Your task to perform on an android device: toggle priority inbox in the gmail app Image 0: 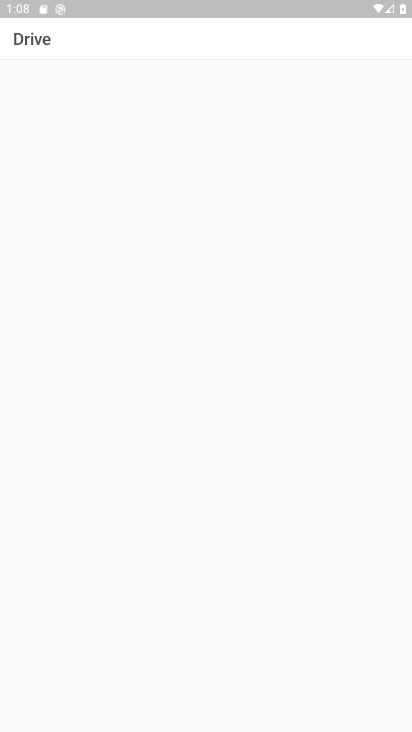
Step 0: press home button
Your task to perform on an android device: toggle priority inbox in the gmail app Image 1: 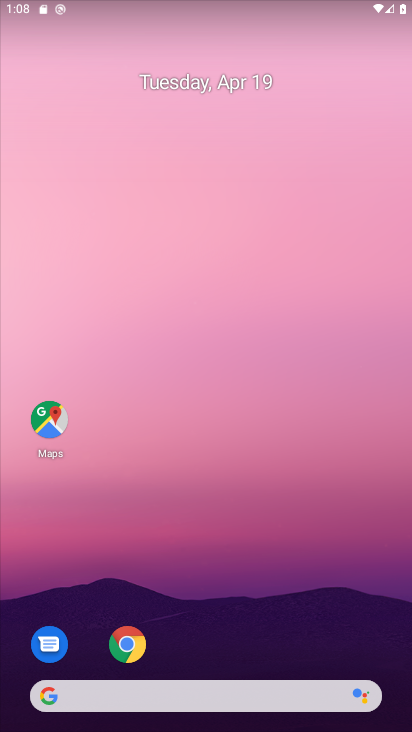
Step 1: drag from (189, 629) to (302, 75)
Your task to perform on an android device: toggle priority inbox in the gmail app Image 2: 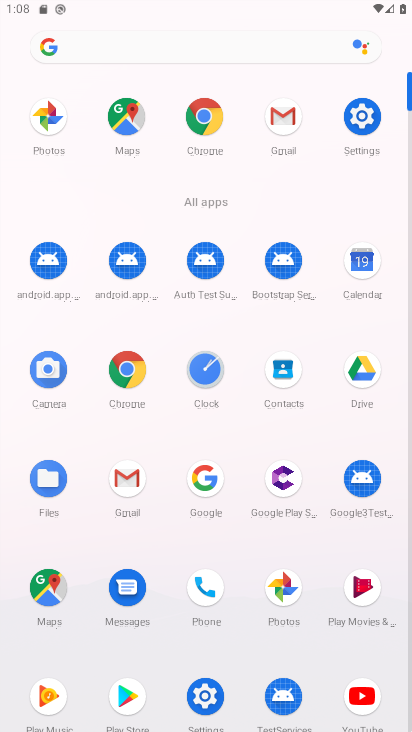
Step 2: click (126, 482)
Your task to perform on an android device: toggle priority inbox in the gmail app Image 3: 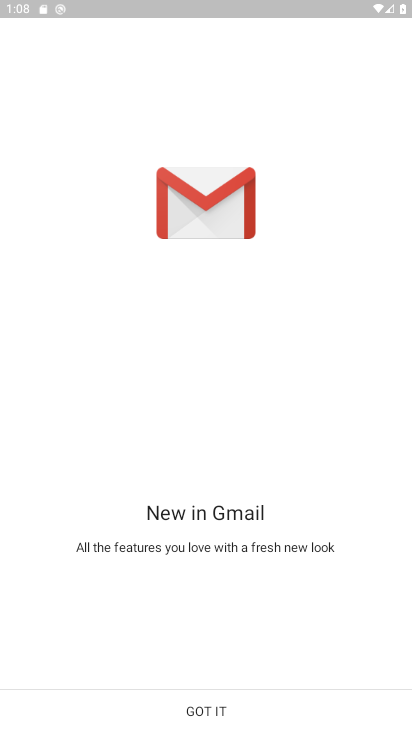
Step 3: click (213, 710)
Your task to perform on an android device: toggle priority inbox in the gmail app Image 4: 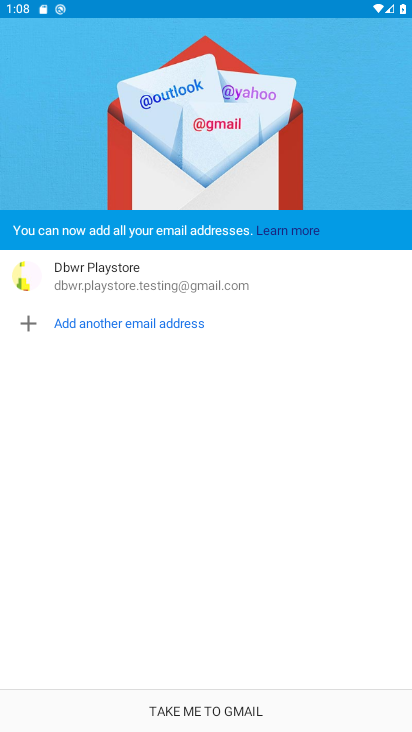
Step 4: click (206, 710)
Your task to perform on an android device: toggle priority inbox in the gmail app Image 5: 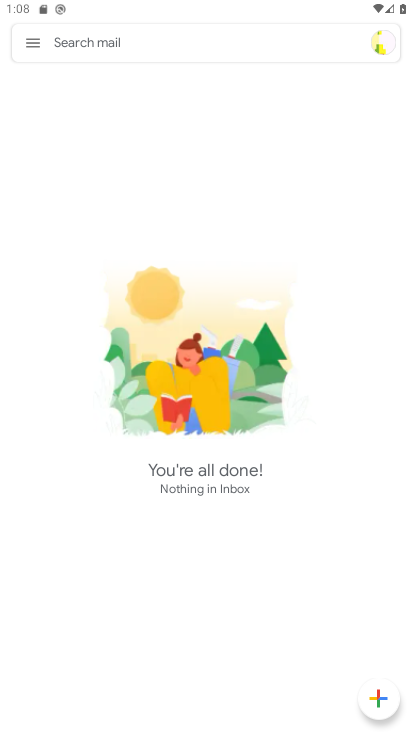
Step 5: click (36, 47)
Your task to perform on an android device: toggle priority inbox in the gmail app Image 6: 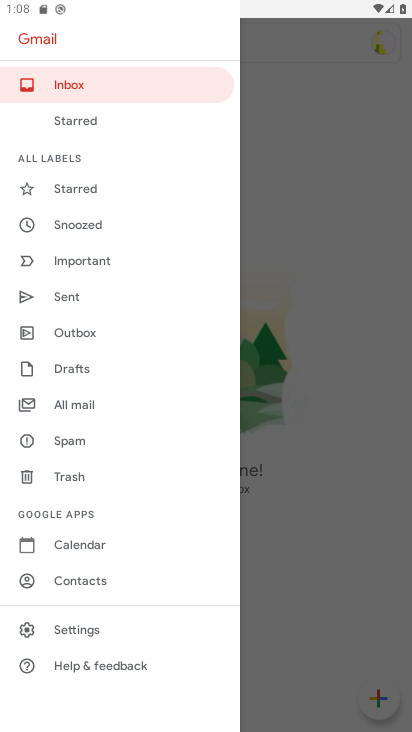
Step 6: click (86, 633)
Your task to perform on an android device: toggle priority inbox in the gmail app Image 7: 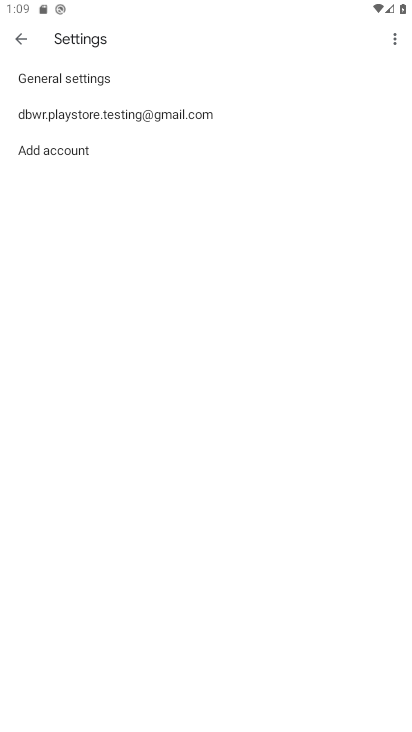
Step 7: click (92, 115)
Your task to perform on an android device: toggle priority inbox in the gmail app Image 8: 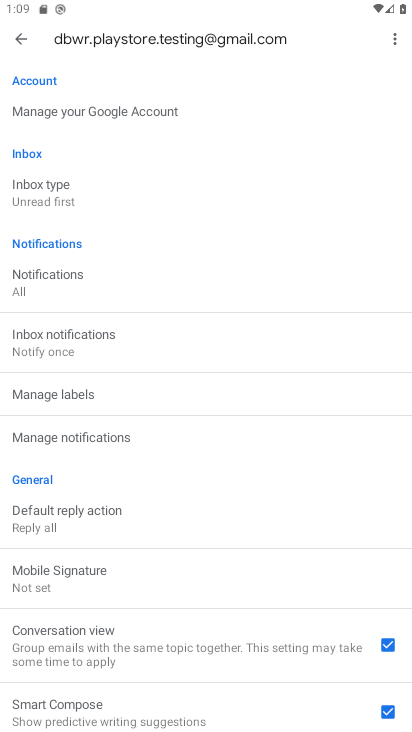
Step 8: click (72, 196)
Your task to perform on an android device: toggle priority inbox in the gmail app Image 9: 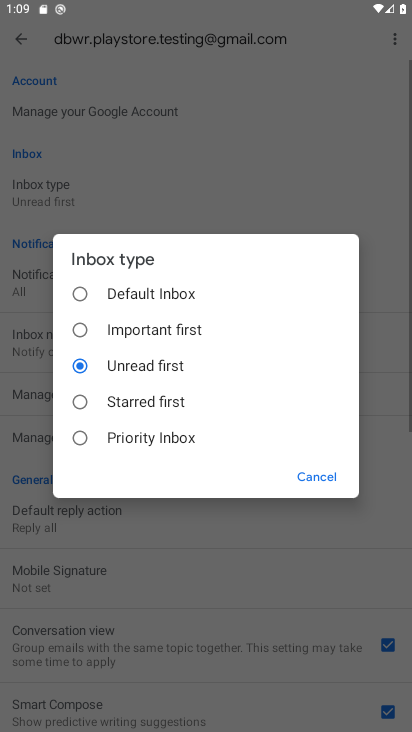
Step 9: click (84, 437)
Your task to perform on an android device: toggle priority inbox in the gmail app Image 10: 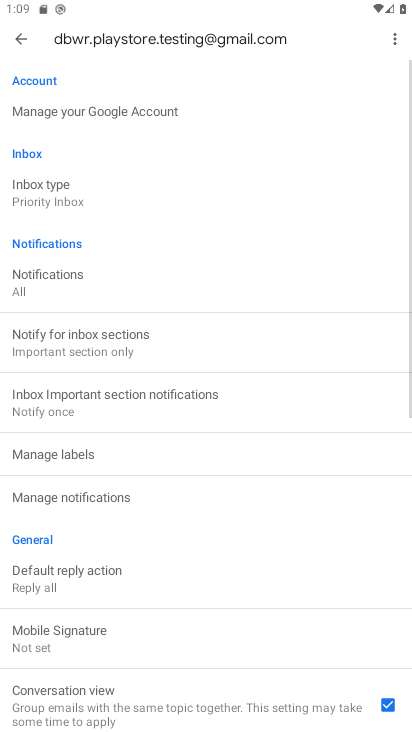
Step 10: task complete